Your task to perform on an android device: Clear the shopping cart on bestbuy. Add "apple airpods" to the cart on bestbuy, then select checkout. Image 0: 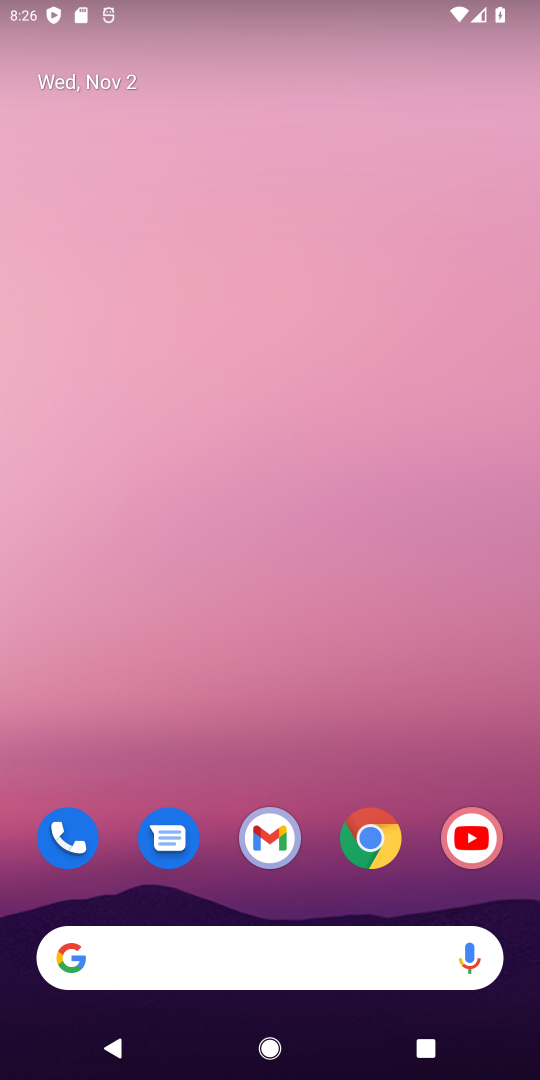
Step 0: click (383, 857)
Your task to perform on an android device: Clear the shopping cart on bestbuy. Add "apple airpods" to the cart on bestbuy, then select checkout. Image 1: 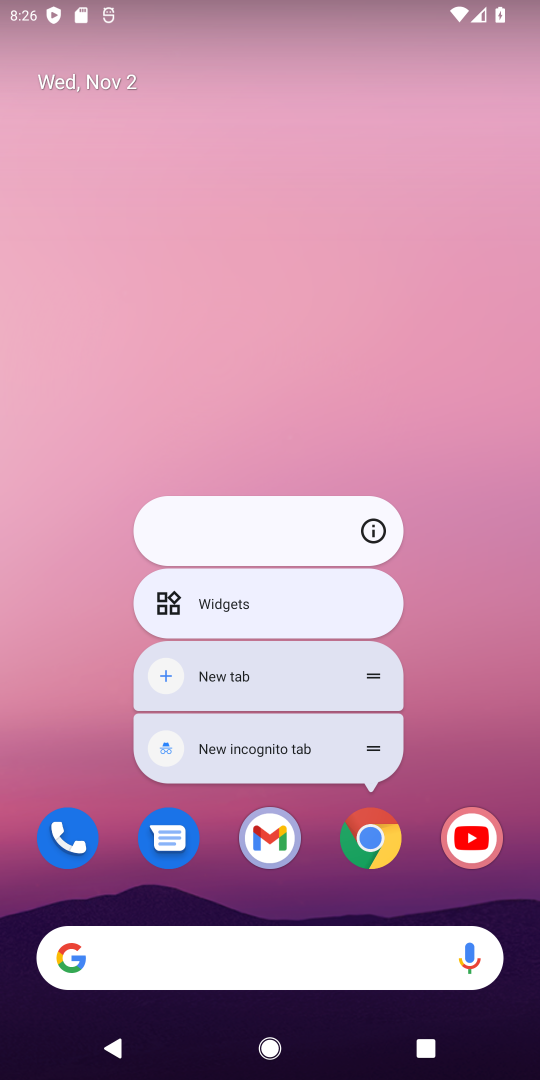
Step 1: click (388, 850)
Your task to perform on an android device: Clear the shopping cart on bestbuy. Add "apple airpods" to the cart on bestbuy, then select checkout. Image 2: 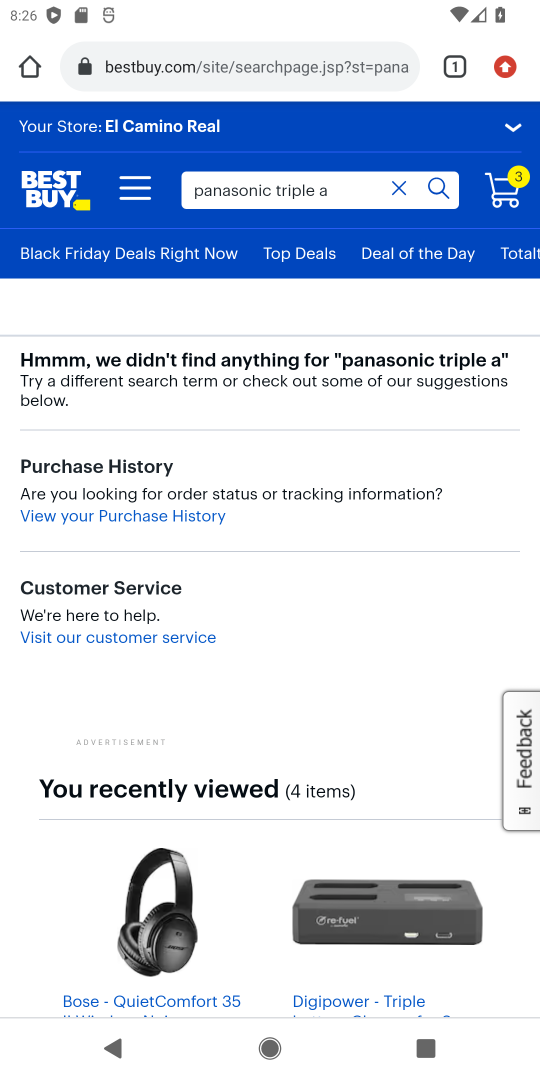
Step 2: click (267, 63)
Your task to perform on an android device: Clear the shopping cart on bestbuy. Add "apple airpods" to the cart on bestbuy, then select checkout. Image 3: 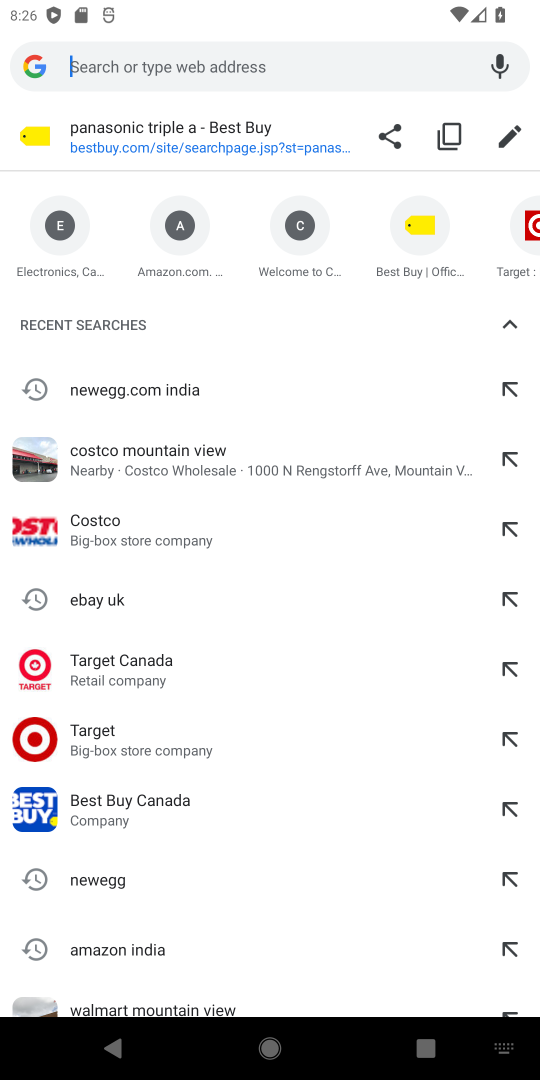
Step 3: type "bestbuy"
Your task to perform on an android device: Clear the shopping cart on bestbuy. Add "apple airpods" to the cart on bestbuy, then select checkout. Image 4: 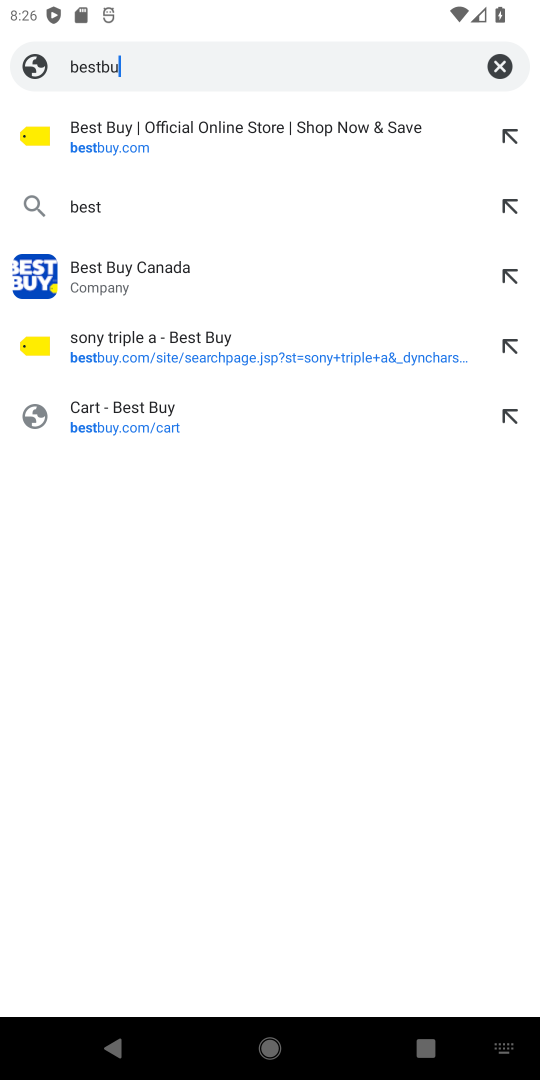
Step 4: type ""
Your task to perform on an android device: Clear the shopping cart on bestbuy. Add "apple airpods" to the cart on bestbuy, then select checkout. Image 5: 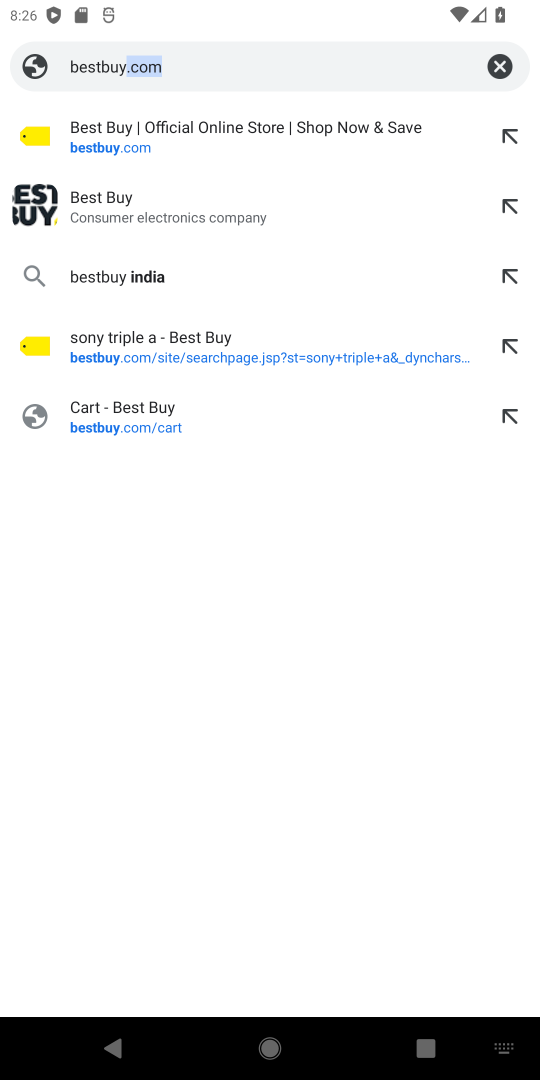
Step 5: press enter
Your task to perform on an android device: Clear the shopping cart on bestbuy. Add "apple airpods" to the cart on bestbuy, then select checkout. Image 6: 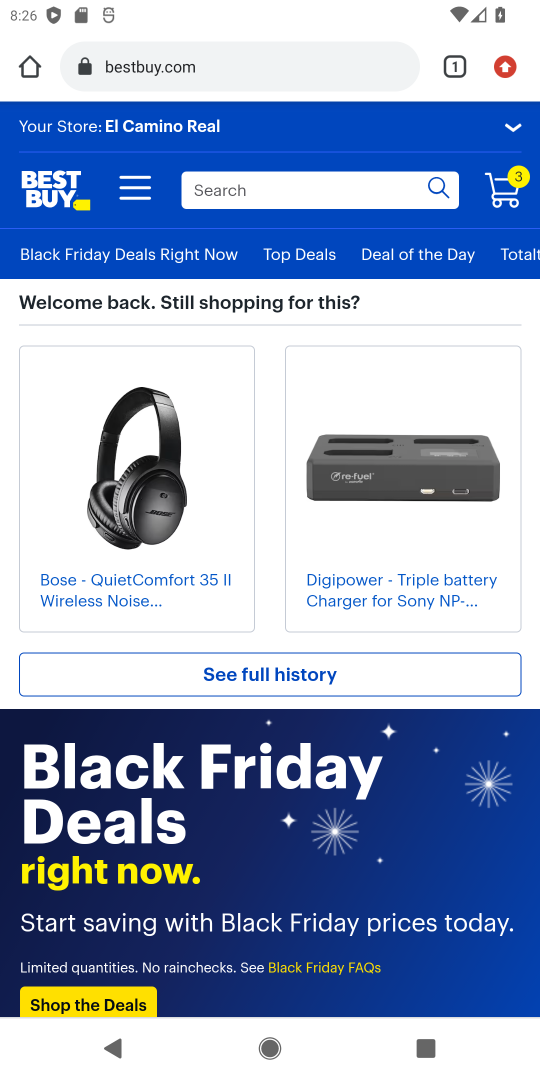
Step 6: click (509, 198)
Your task to perform on an android device: Clear the shopping cart on bestbuy. Add "apple airpods" to the cart on bestbuy, then select checkout. Image 7: 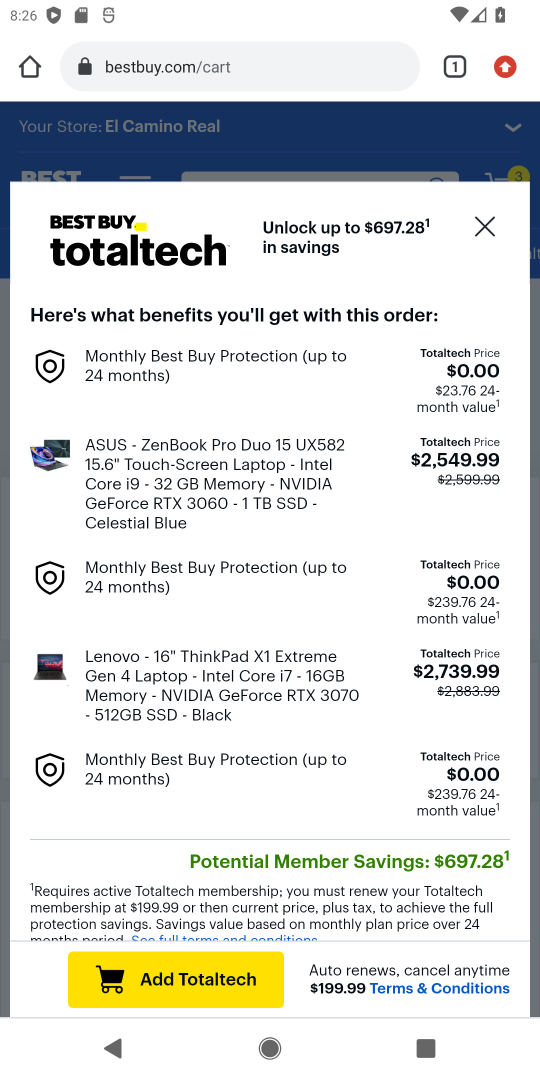
Step 7: click (483, 226)
Your task to perform on an android device: Clear the shopping cart on bestbuy. Add "apple airpods" to the cart on bestbuy, then select checkout. Image 8: 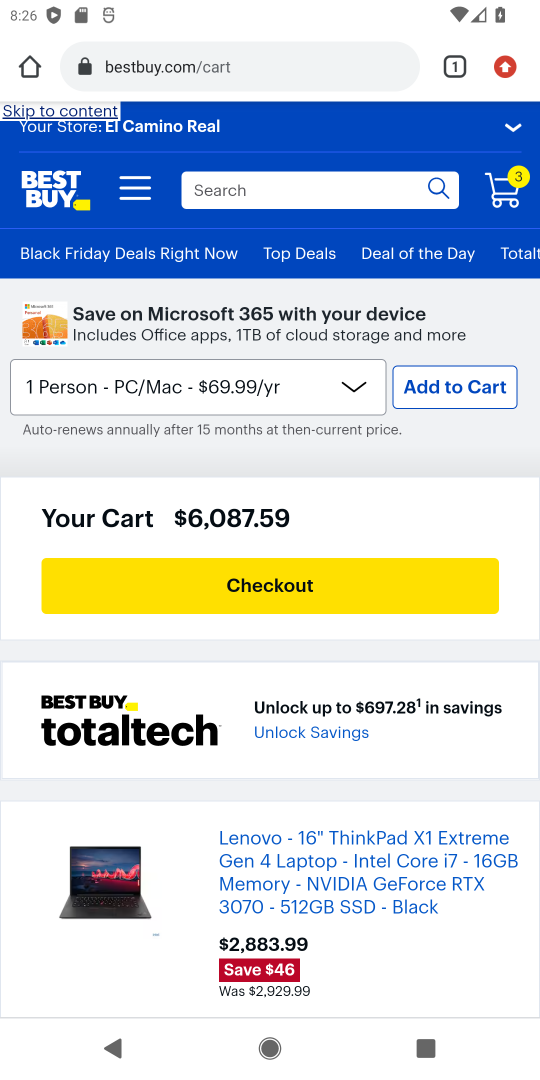
Step 8: drag from (295, 812) to (369, 462)
Your task to perform on an android device: Clear the shopping cart on bestbuy. Add "apple airpods" to the cart on bestbuy, then select checkout. Image 9: 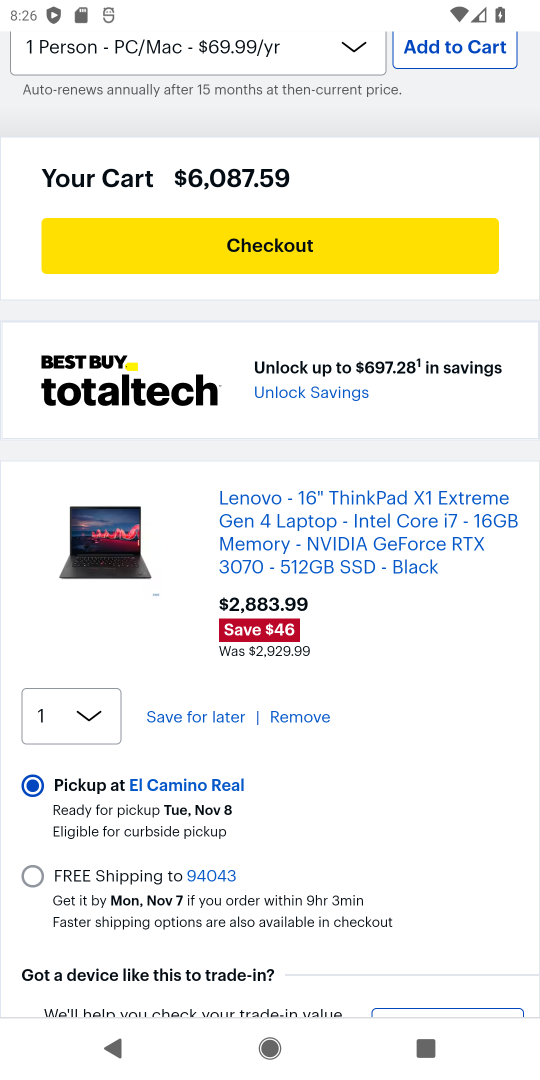
Step 9: click (299, 714)
Your task to perform on an android device: Clear the shopping cart on bestbuy. Add "apple airpods" to the cart on bestbuy, then select checkout. Image 10: 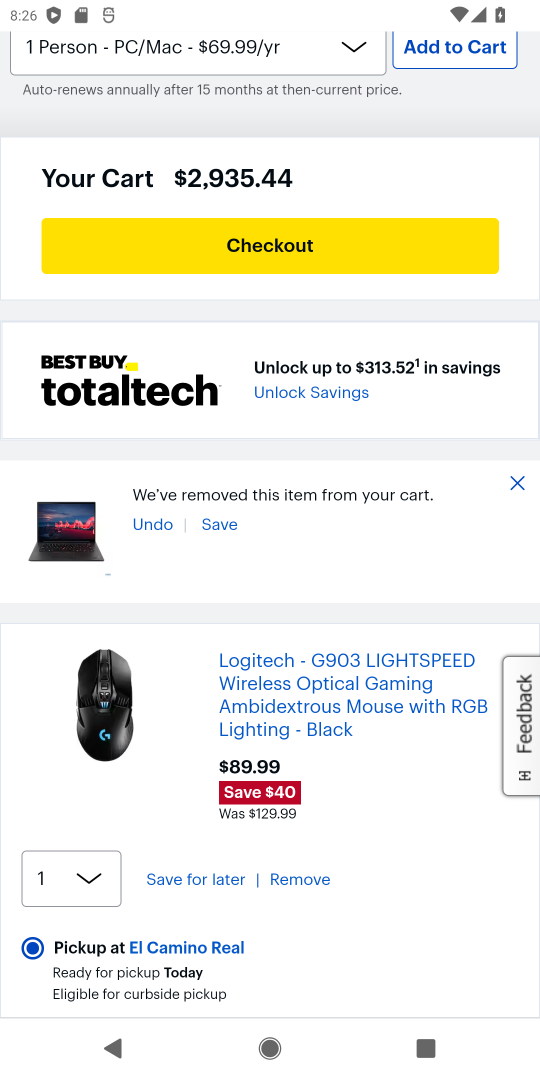
Step 10: click (305, 882)
Your task to perform on an android device: Clear the shopping cart on bestbuy. Add "apple airpods" to the cart on bestbuy, then select checkout. Image 11: 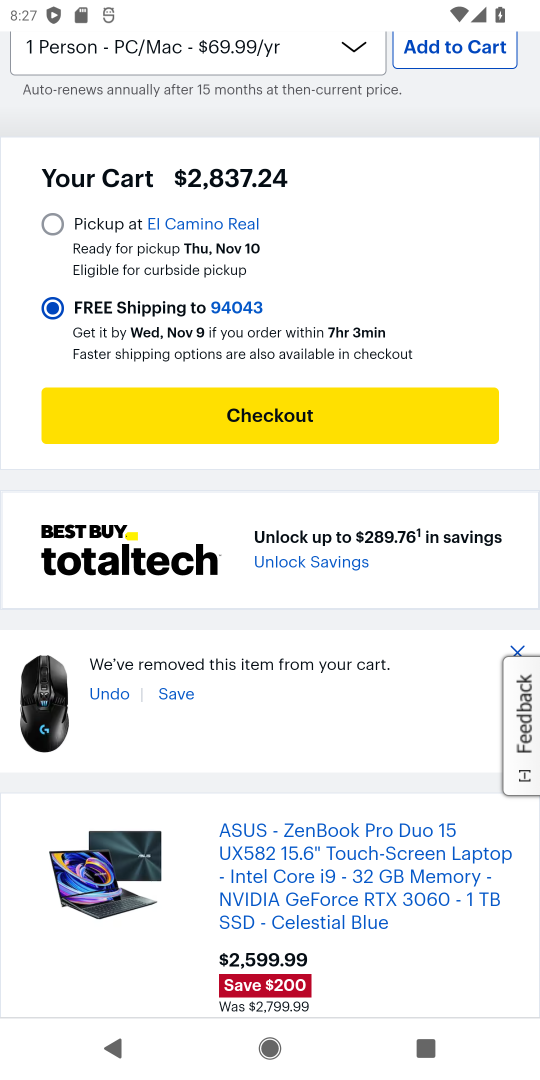
Step 11: drag from (355, 945) to (335, 589)
Your task to perform on an android device: Clear the shopping cart on bestbuy. Add "apple airpods" to the cart on bestbuy, then select checkout. Image 12: 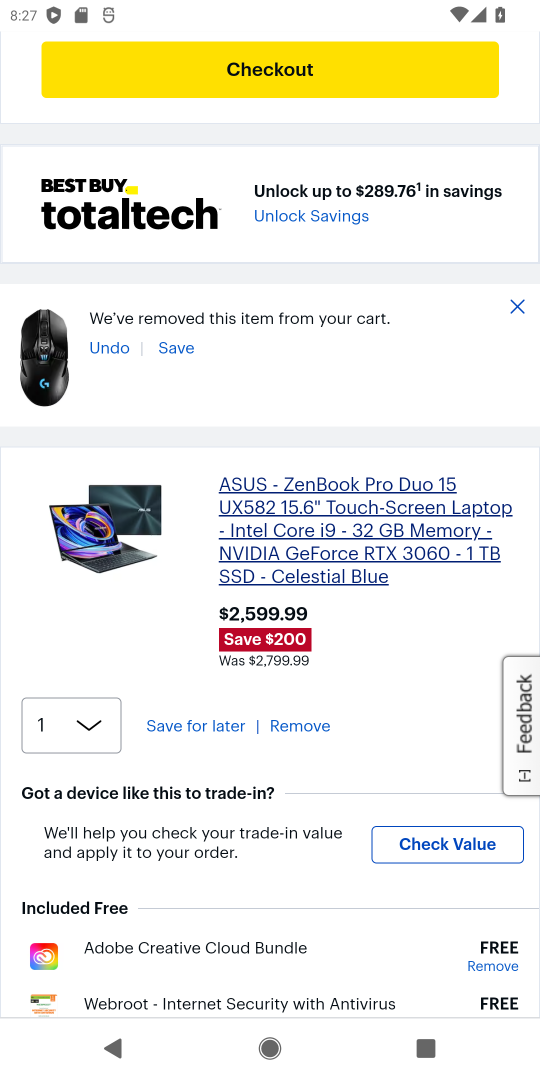
Step 12: click (301, 722)
Your task to perform on an android device: Clear the shopping cart on bestbuy. Add "apple airpods" to the cart on bestbuy, then select checkout. Image 13: 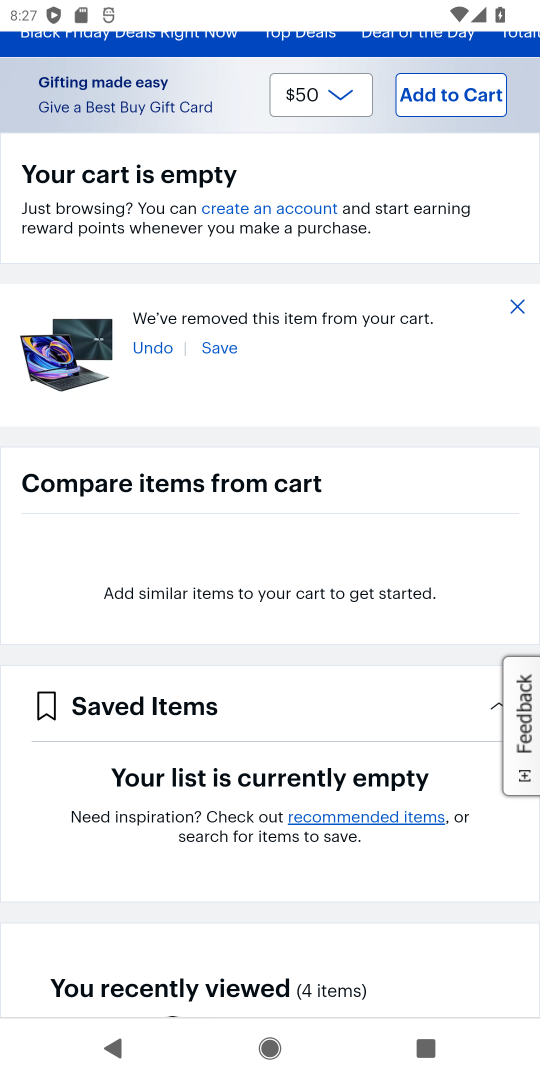
Step 13: drag from (150, 812) to (157, 919)
Your task to perform on an android device: Clear the shopping cart on bestbuy. Add "apple airpods" to the cart on bestbuy, then select checkout. Image 14: 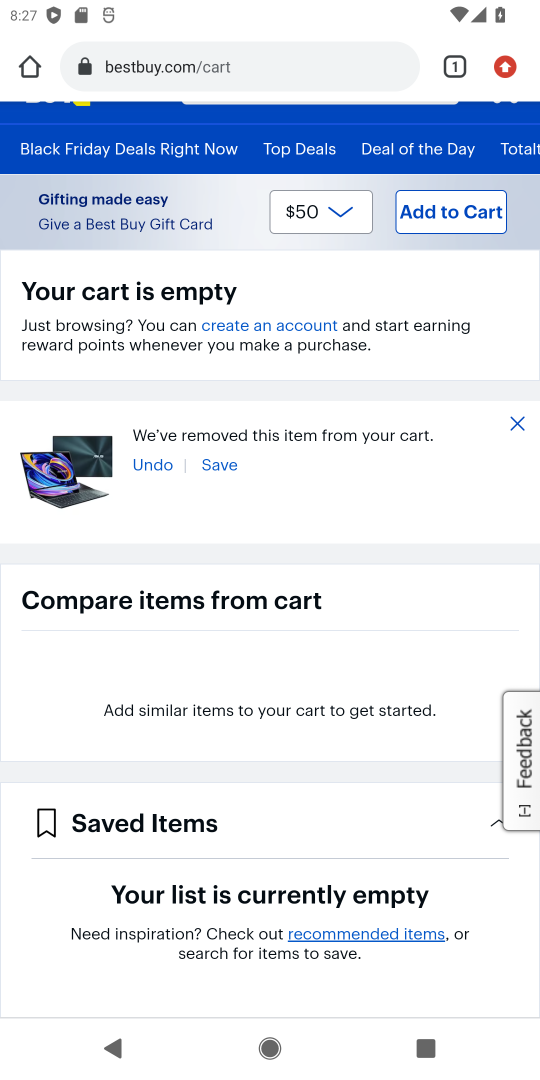
Step 14: drag from (315, 432) to (354, 776)
Your task to perform on an android device: Clear the shopping cart on bestbuy. Add "apple airpods" to the cart on bestbuy, then select checkout. Image 15: 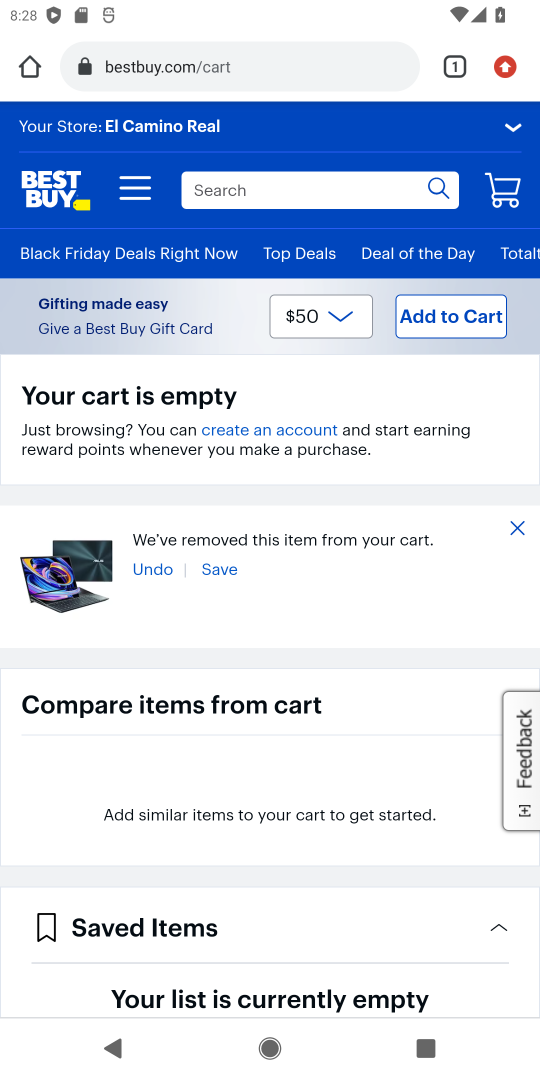
Step 15: click (284, 198)
Your task to perform on an android device: Clear the shopping cart on bestbuy. Add "apple airpods" to the cart on bestbuy, then select checkout. Image 16: 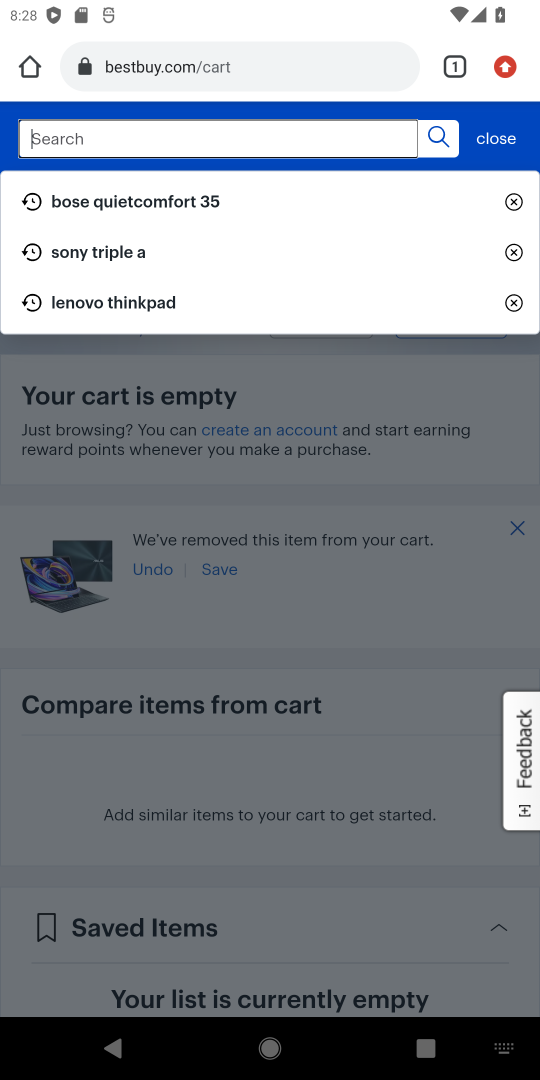
Step 16: type "apple airpods"
Your task to perform on an android device: Clear the shopping cart on bestbuy. Add "apple airpods" to the cart on bestbuy, then select checkout. Image 17: 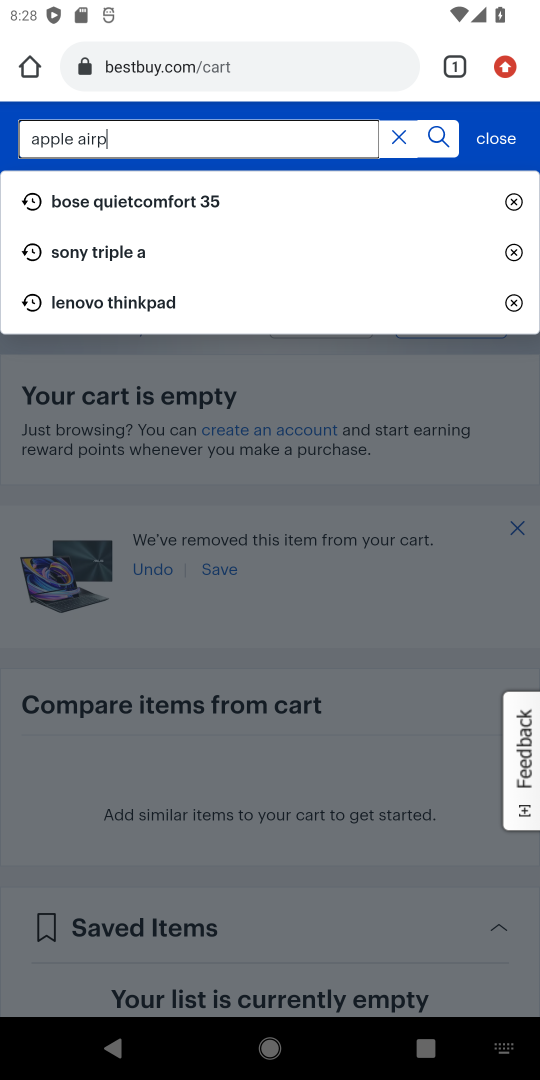
Step 17: type ""
Your task to perform on an android device: Clear the shopping cart on bestbuy. Add "apple airpods" to the cart on bestbuy, then select checkout. Image 18: 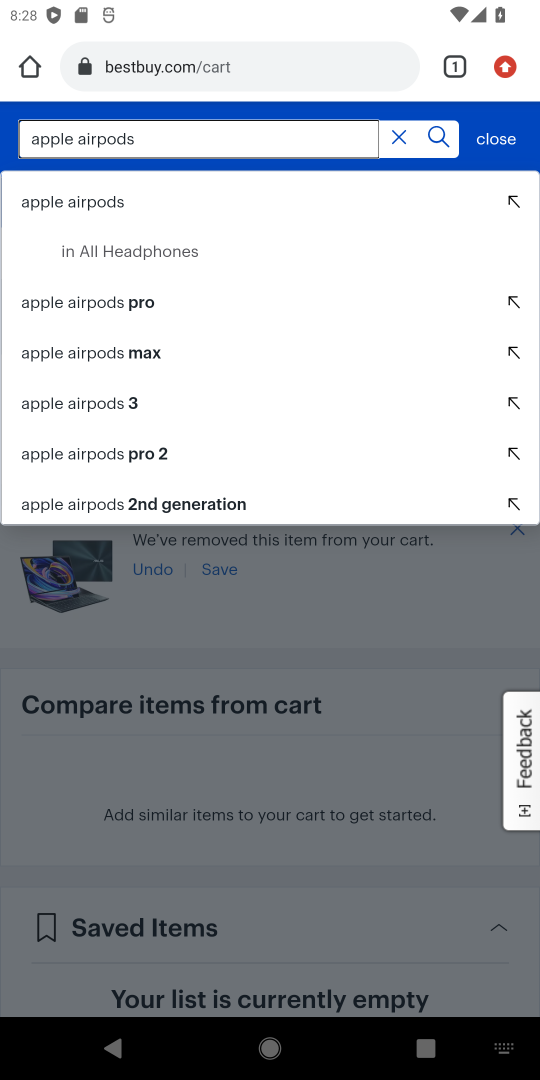
Step 18: press enter
Your task to perform on an android device: Clear the shopping cart on bestbuy. Add "apple airpods" to the cart on bestbuy, then select checkout. Image 19: 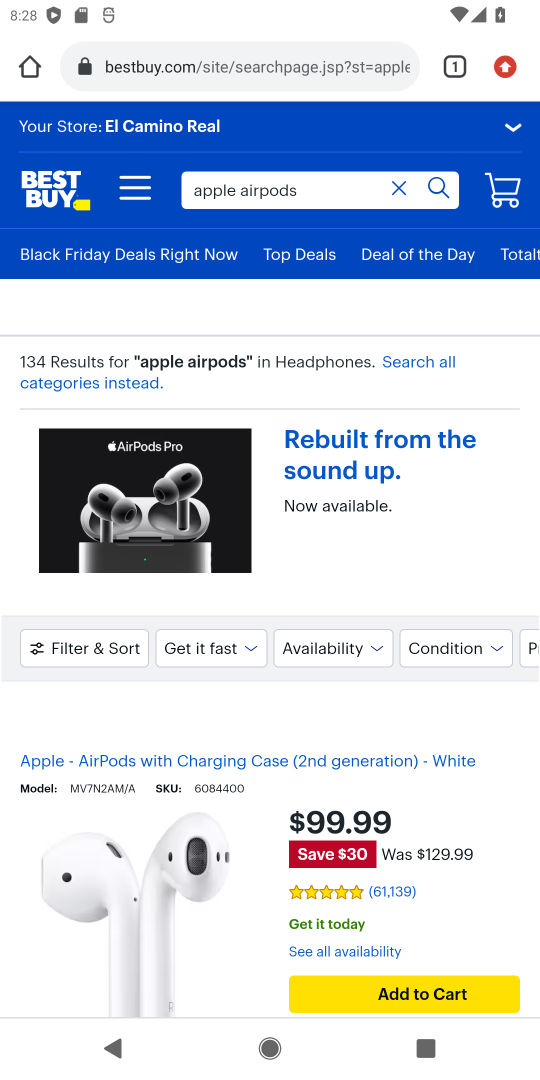
Step 19: press enter
Your task to perform on an android device: Clear the shopping cart on bestbuy. Add "apple airpods" to the cart on bestbuy, then select checkout. Image 20: 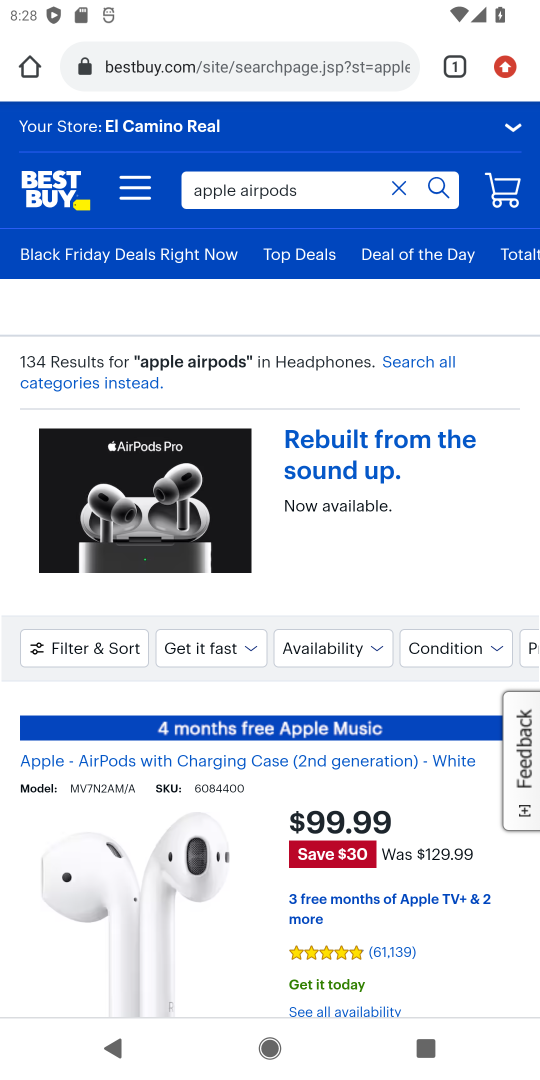
Step 20: click (398, 769)
Your task to perform on an android device: Clear the shopping cart on bestbuy. Add "apple airpods" to the cart on bestbuy, then select checkout. Image 21: 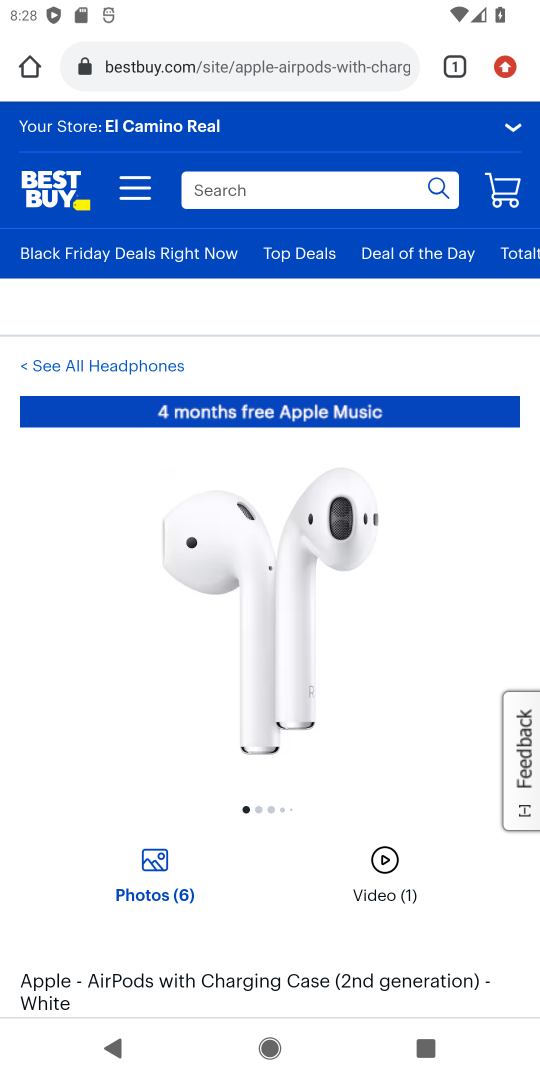
Step 21: drag from (365, 893) to (301, 212)
Your task to perform on an android device: Clear the shopping cart on bestbuy. Add "apple airpods" to the cart on bestbuy, then select checkout. Image 22: 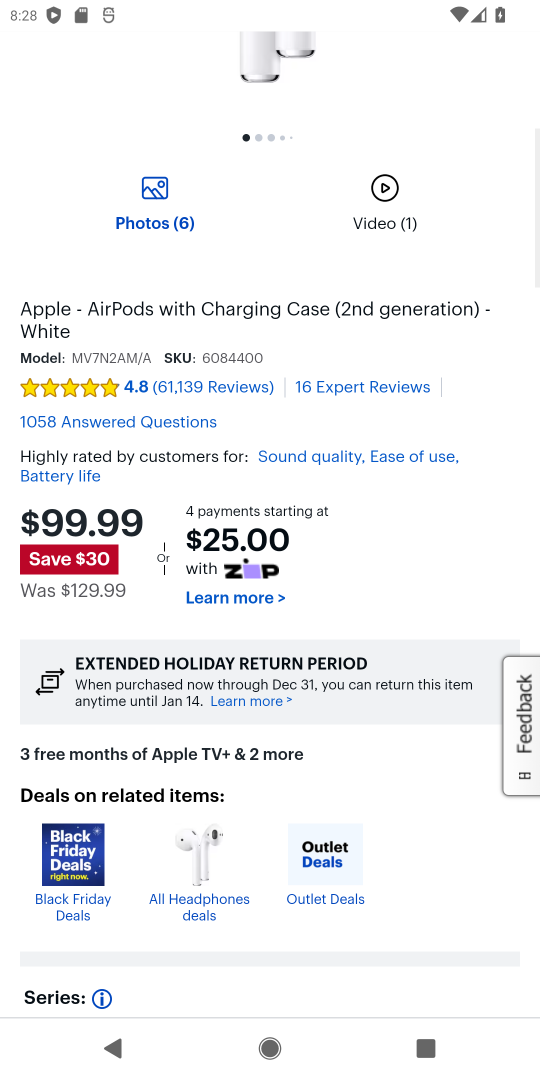
Step 22: drag from (305, 836) to (290, 219)
Your task to perform on an android device: Clear the shopping cart on bestbuy. Add "apple airpods" to the cart on bestbuy, then select checkout. Image 23: 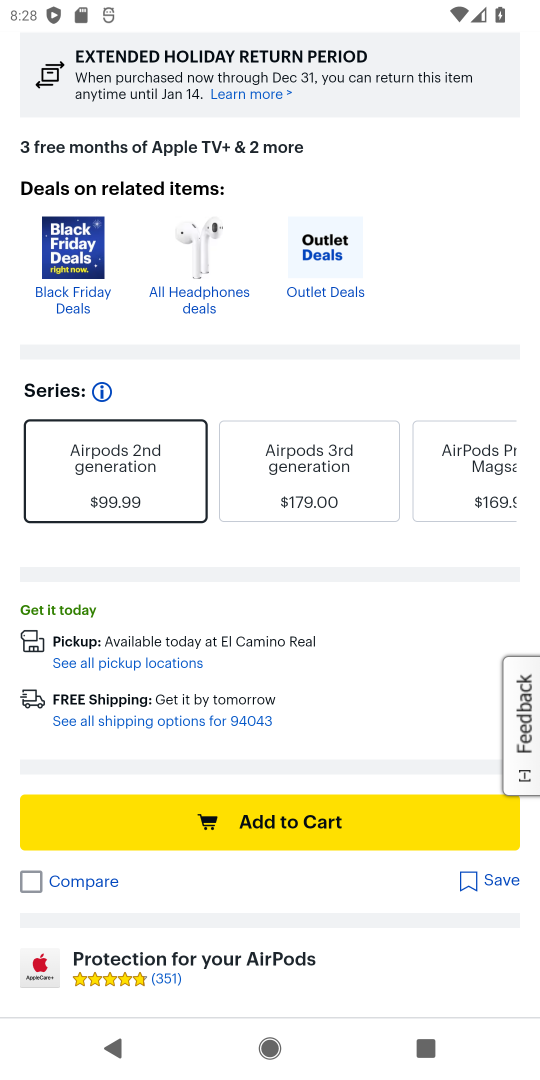
Step 23: click (327, 828)
Your task to perform on an android device: Clear the shopping cart on bestbuy. Add "apple airpods" to the cart on bestbuy, then select checkout. Image 24: 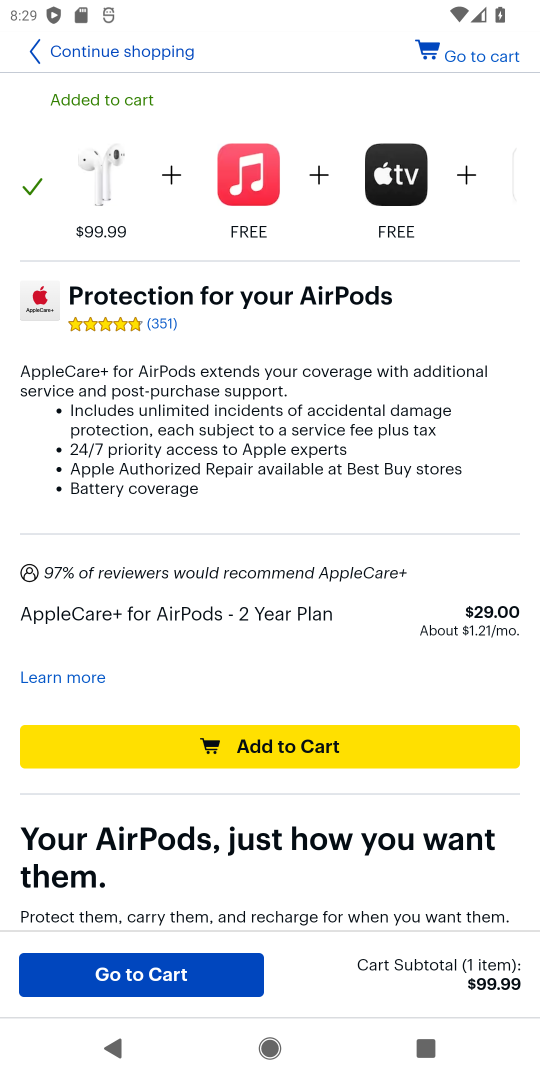
Step 24: click (202, 971)
Your task to perform on an android device: Clear the shopping cart on bestbuy. Add "apple airpods" to the cart on bestbuy, then select checkout. Image 25: 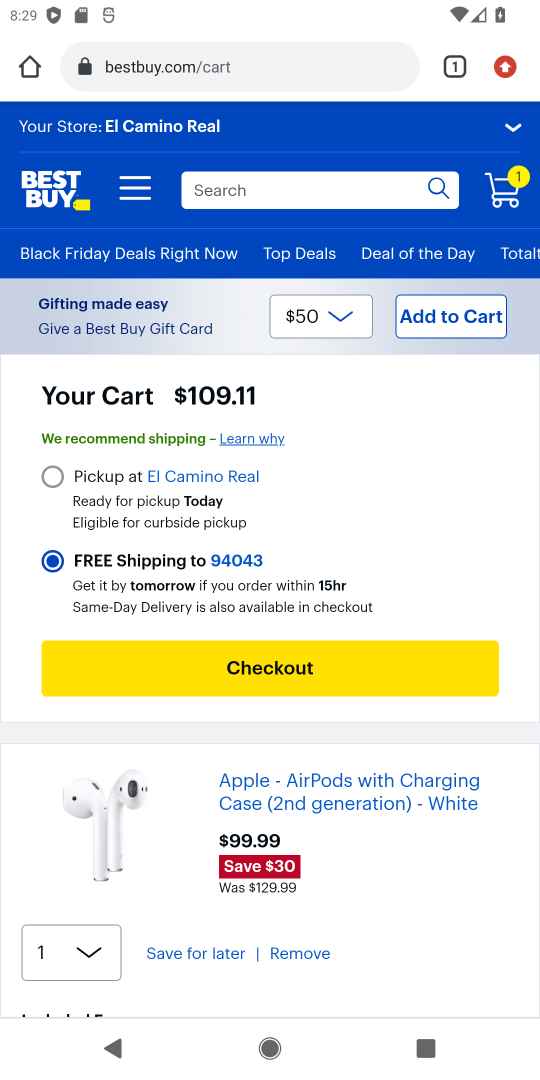
Step 25: click (281, 682)
Your task to perform on an android device: Clear the shopping cart on bestbuy. Add "apple airpods" to the cart on bestbuy, then select checkout. Image 26: 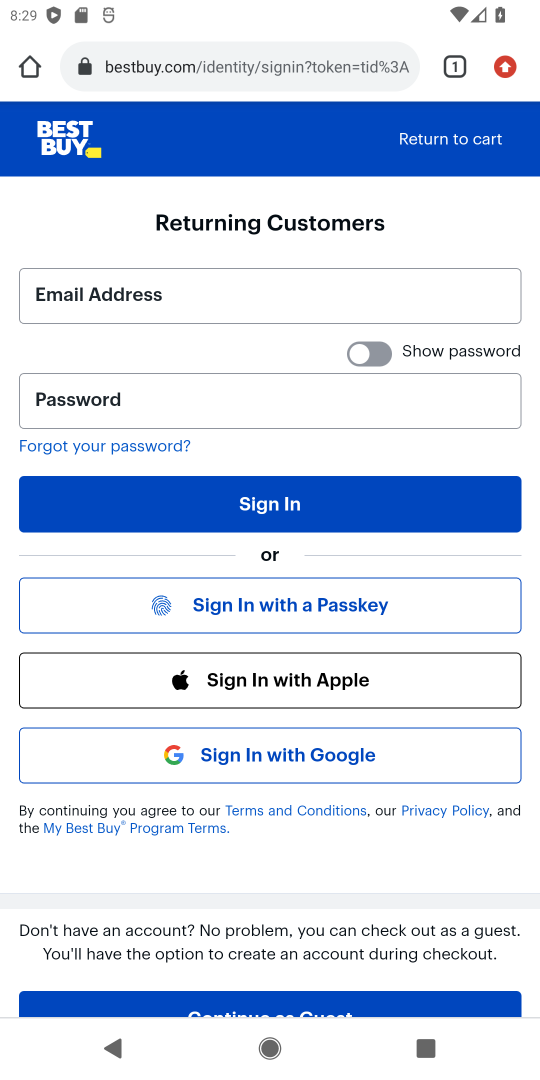
Step 26: task complete